Your task to perform on an android device: add a label to a message in the gmail app Image 0: 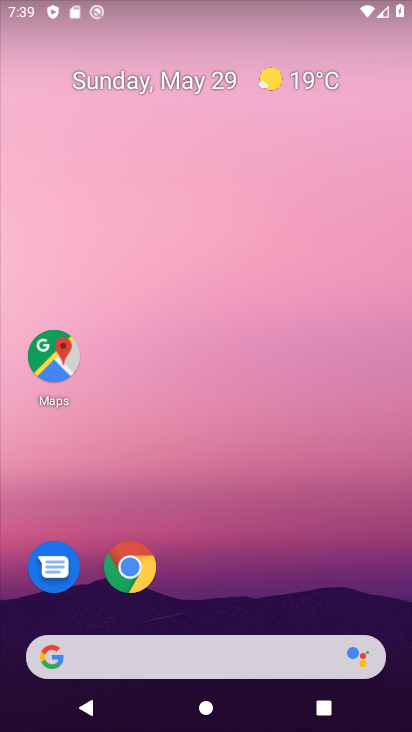
Step 0: drag from (390, 704) to (327, 180)
Your task to perform on an android device: add a label to a message in the gmail app Image 1: 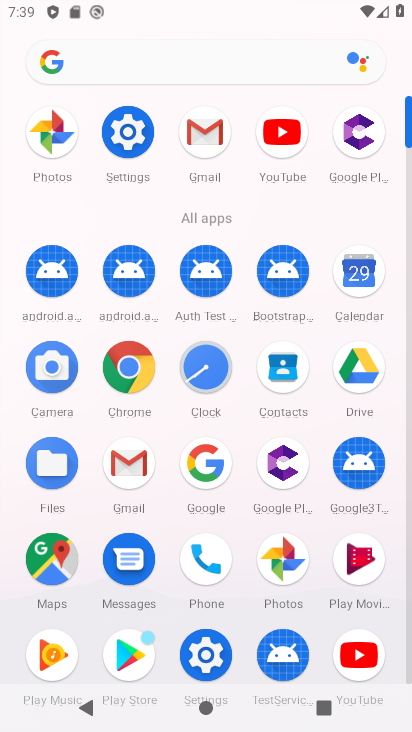
Step 1: click (211, 145)
Your task to perform on an android device: add a label to a message in the gmail app Image 2: 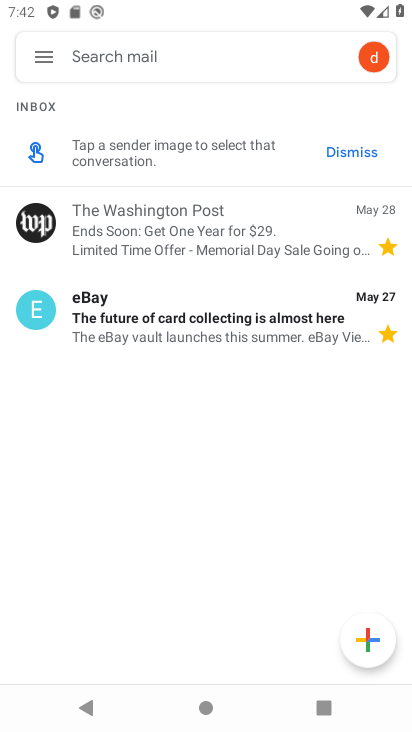
Step 2: task complete